Your task to perform on an android device: turn on bluetooth scan Image 0: 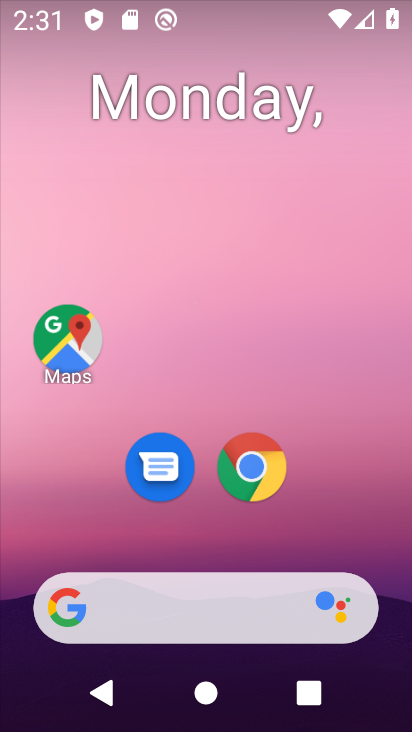
Step 0: drag from (386, 566) to (288, 158)
Your task to perform on an android device: turn on bluetooth scan Image 1: 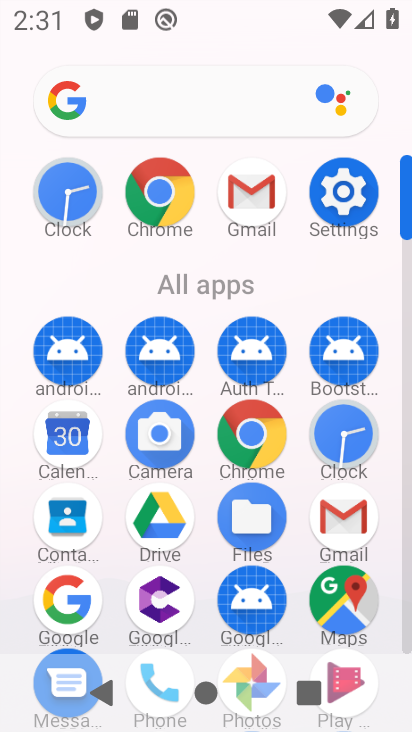
Step 1: click (351, 207)
Your task to perform on an android device: turn on bluetooth scan Image 2: 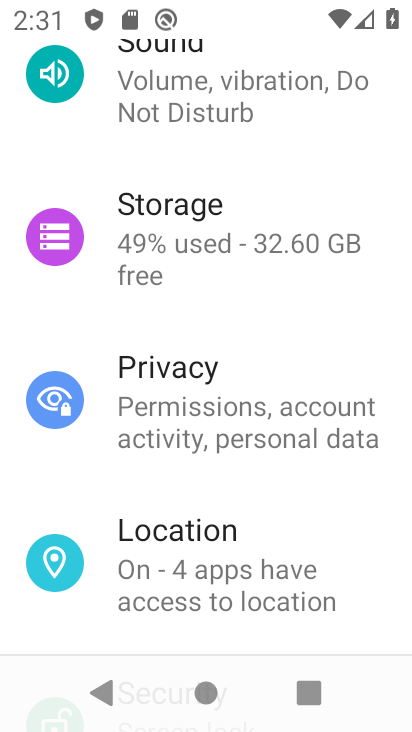
Step 2: click (297, 564)
Your task to perform on an android device: turn on bluetooth scan Image 3: 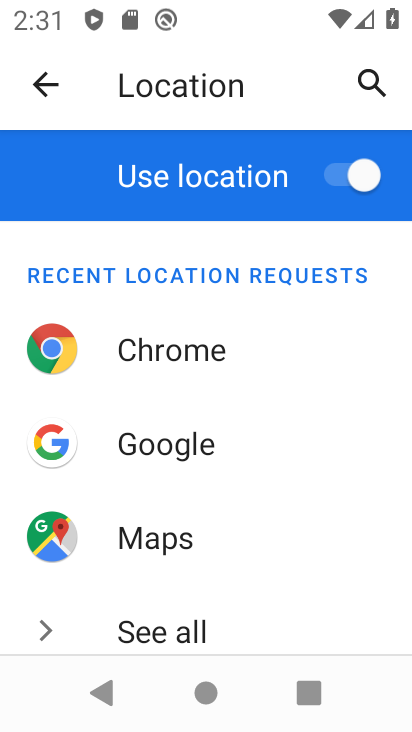
Step 3: drag from (302, 617) to (250, 183)
Your task to perform on an android device: turn on bluetooth scan Image 4: 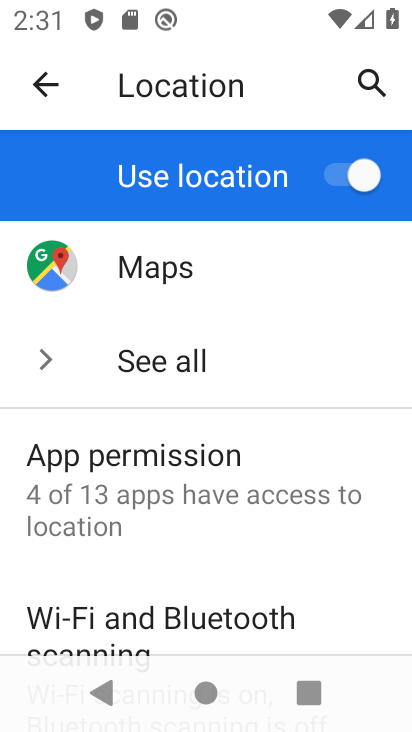
Step 4: drag from (279, 589) to (242, 308)
Your task to perform on an android device: turn on bluetooth scan Image 5: 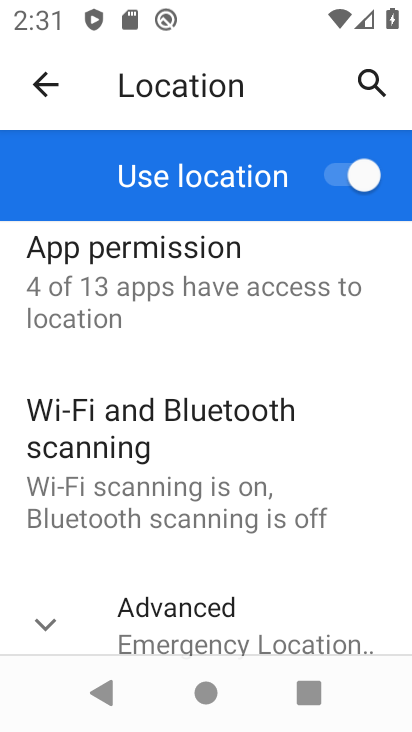
Step 5: click (271, 414)
Your task to perform on an android device: turn on bluetooth scan Image 6: 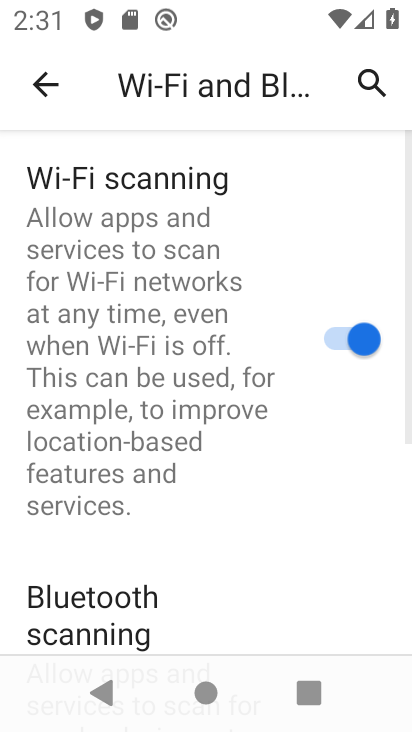
Step 6: drag from (286, 592) to (240, 224)
Your task to perform on an android device: turn on bluetooth scan Image 7: 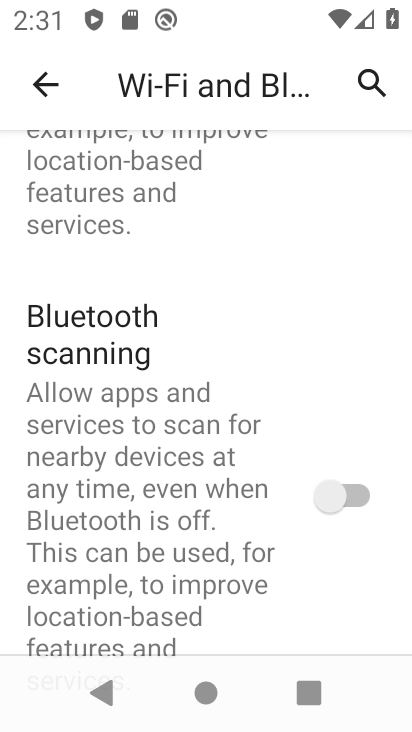
Step 7: click (338, 507)
Your task to perform on an android device: turn on bluetooth scan Image 8: 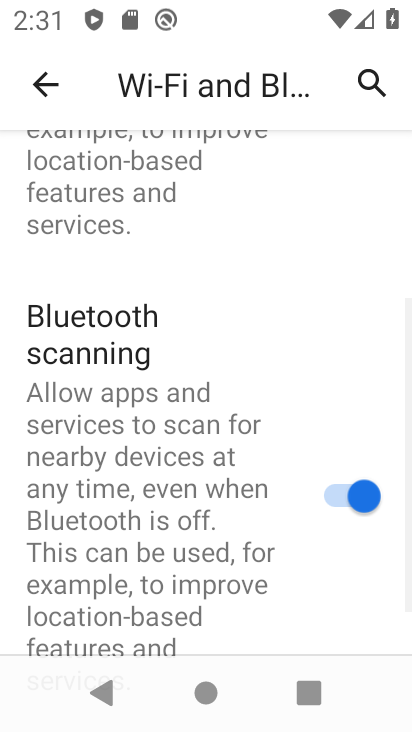
Step 8: task complete